Your task to perform on an android device: Find coffee shops on Maps Image 0: 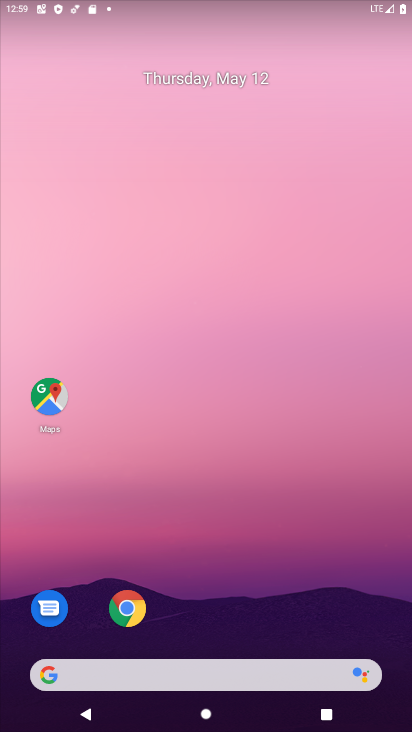
Step 0: click (53, 398)
Your task to perform on an android device: Find coffee shops on Maps Image 1: 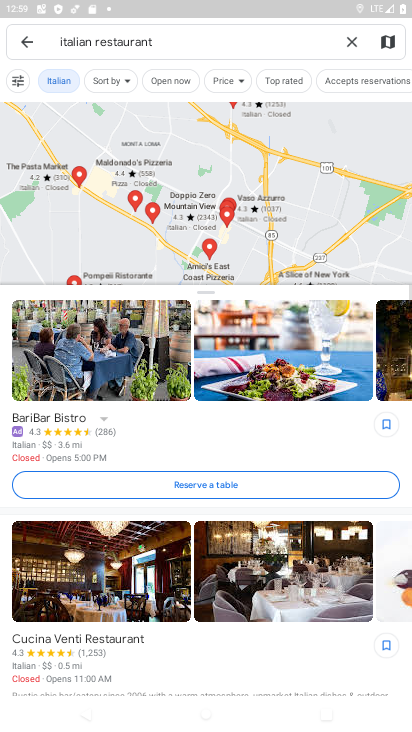
Step 1: click (357, 40)
Your task to perform on an android device: Find coffee shops on Maps Image 2: 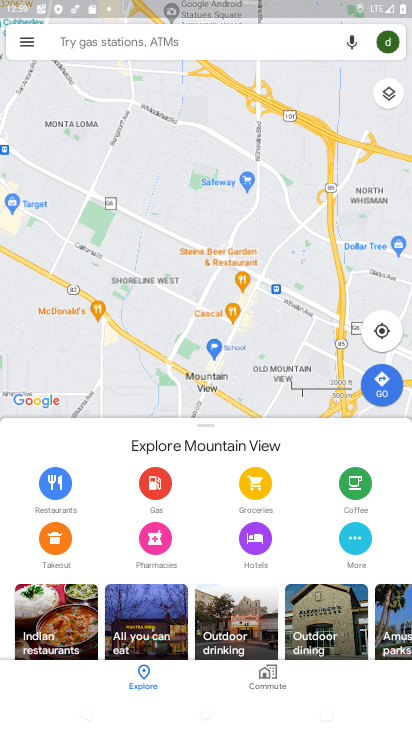
Step 2: click (124, 44)
Your task to perform on an android device: Find coffee shops on Maps Image 3: 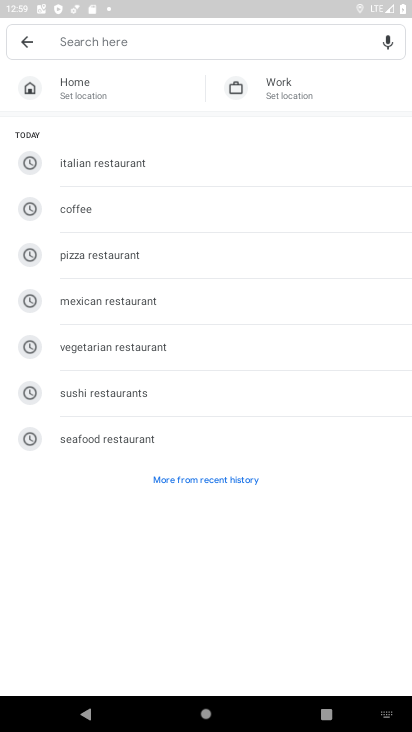
Step 3: type "coffee shops"
Your task to perform on an android device: Find coffee shops on Maps Image 4: 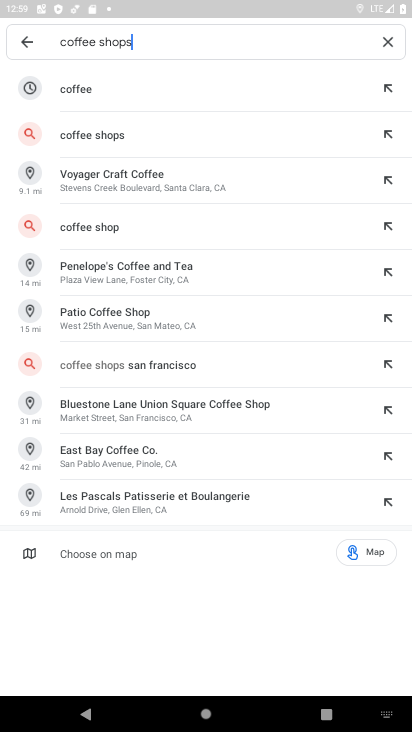
Step 4: click (101, 135)
Your task to perform on an android device: Find coffee shops on Maps Image 5: 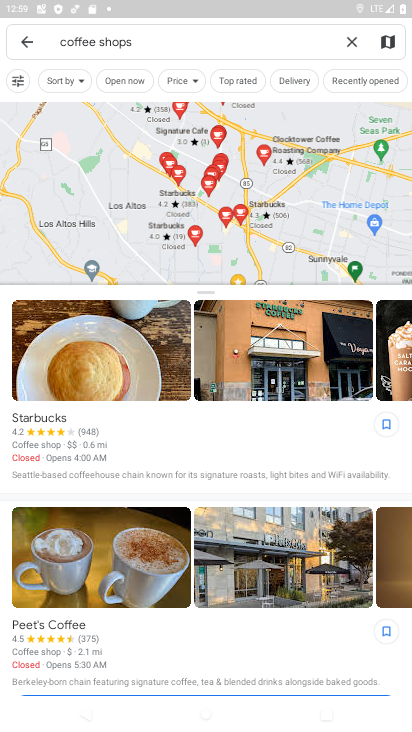
Step 5: task complete